Your task to perform on an android device: Open the calendar and show me this week's events Image 0: 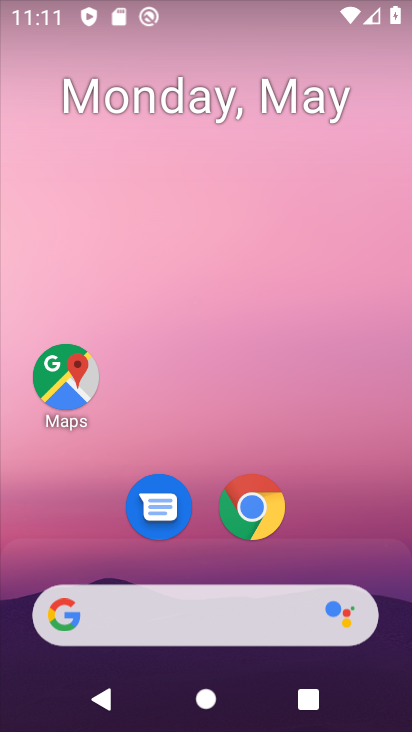
Step 0: drag from (331, 563) to (276, 54)
Your task to perform on an android device: Open the calendar and show me this week's events Image 1: 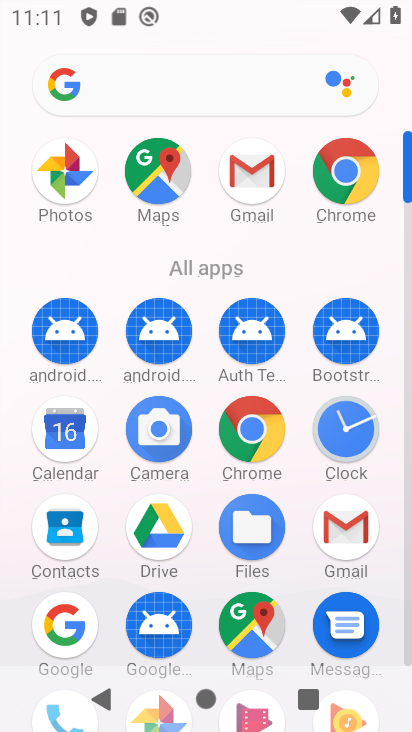
Step 1: click (76, 434)
Your task to perform on an android device: Open the calendar and show me this week's events Image 2: 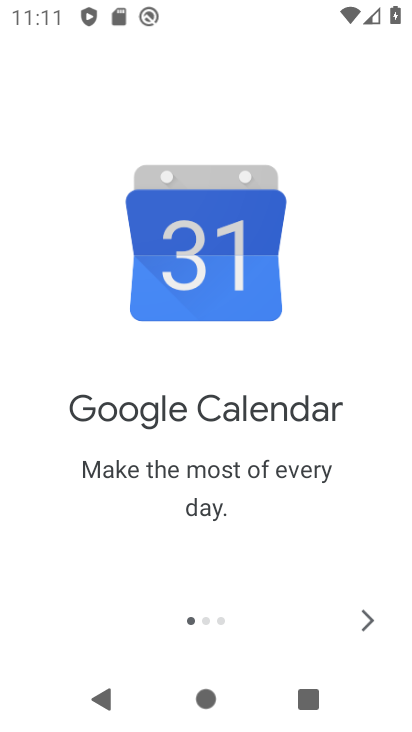
Step 2: click (356, 630)
Your task to perform on an android device: Open the calendar and show me this week's events Image 3: 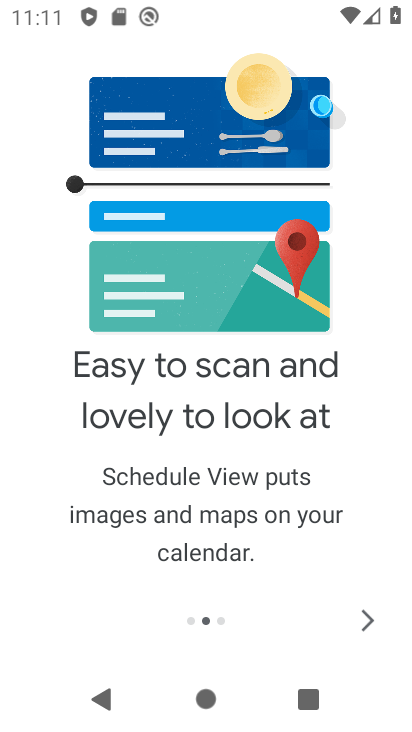
Step 3: click (356, 630)
Your task to perform on an android device: Open the calendar and show me this week's events Image 4: 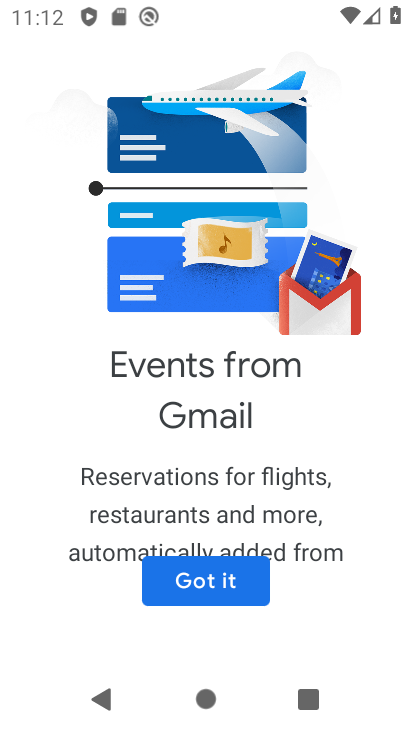
Step 4: click (238, 578)
Your task to perform on an android device: Open the calendar and show me this week's events Image 5: 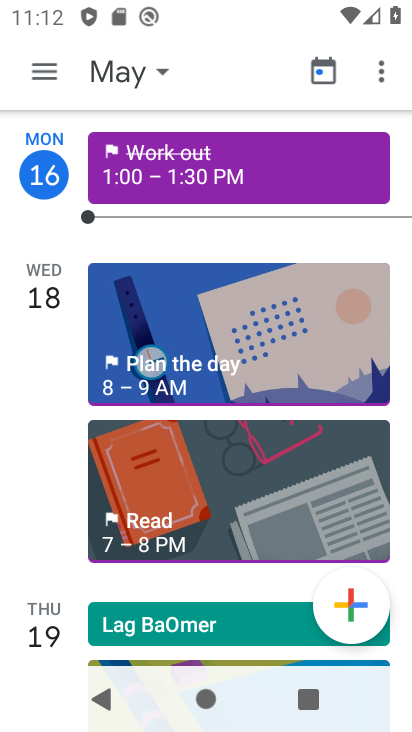
Step 5: click (53, 62)
Your task to perform on an android device: Open the calendar and show me this week's events Image 6: 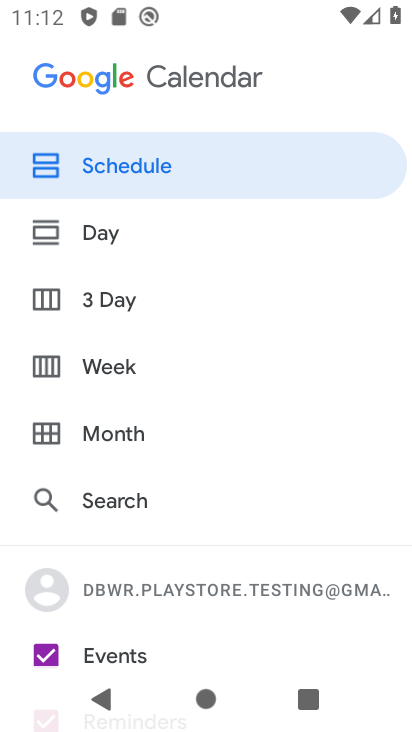
Step 6: click (120, 385)
Your task to perform on an android device: Open the calendar and show me this week's events Image 7: 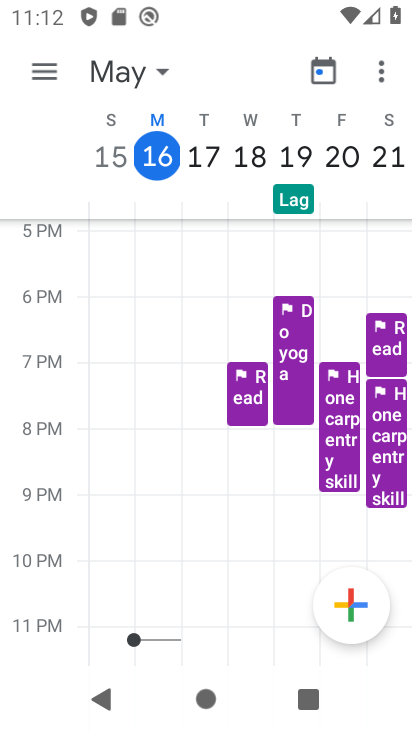
Step 7: click (148, 75)
Your task to perform on an android device: Open the calendar and show me this week's events Image 8: 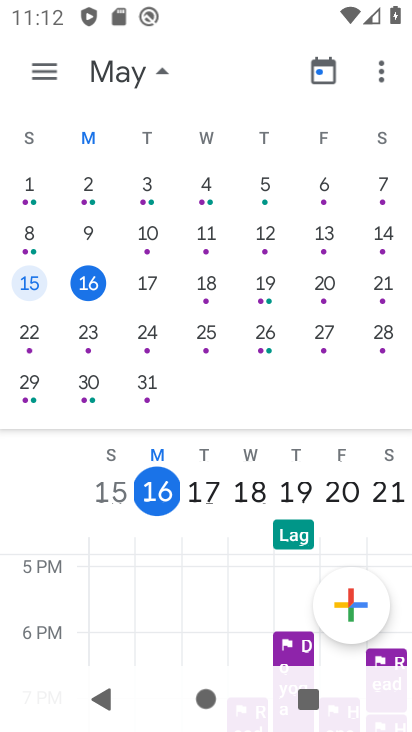
Step 8: drag from (368, 313) to (8, 288)
Your task to perform on an android device: Open the calendar and show me this week's events Image 9: 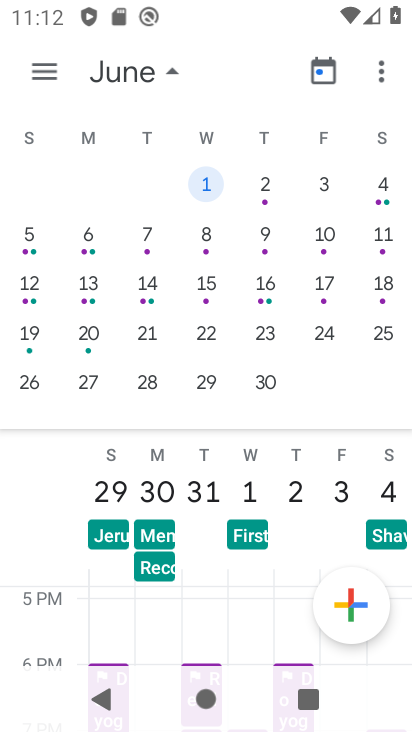
Step 9: drag from (86, 252) to (401, 294)
Your task to perform on an android device: Open the calendar and show me this week's events Image 10: 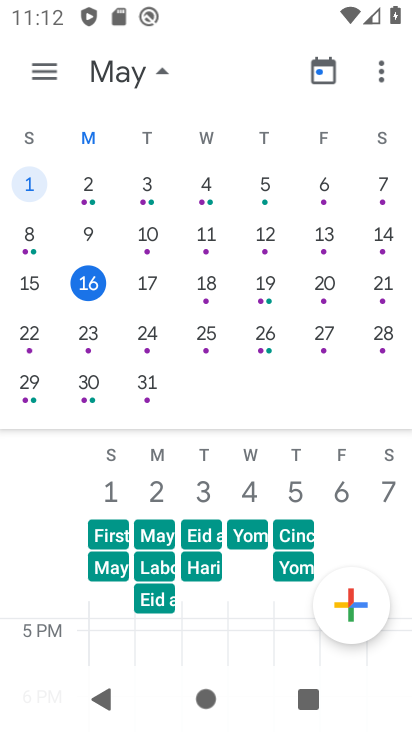
Step 10: click (143, 282)
Your task to perform on an android device: Open the calendar and show me this week's events Image 11: 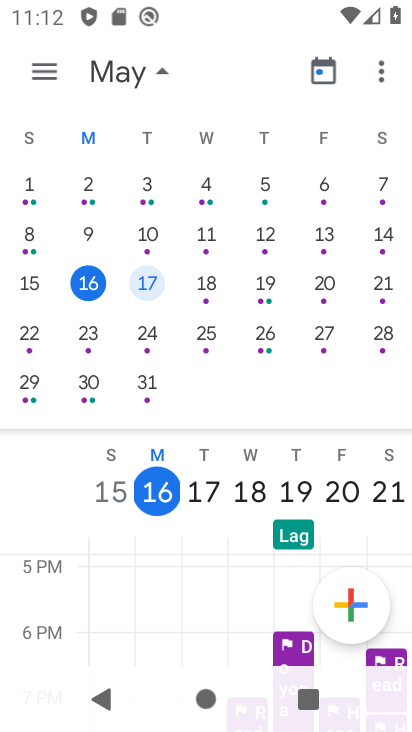
Step 11: click (131, 86)
Your task to perform on an android device: Open the calendar and show me this week's events Image 12: 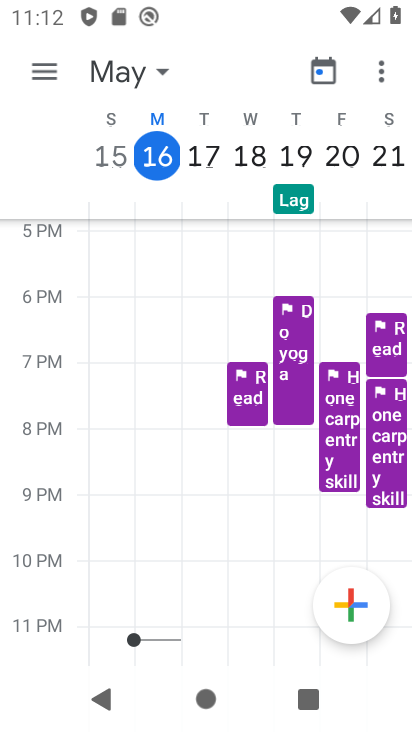
Step 12: task complete